Your task to perform on an android device: Go to sound settings Image 0: 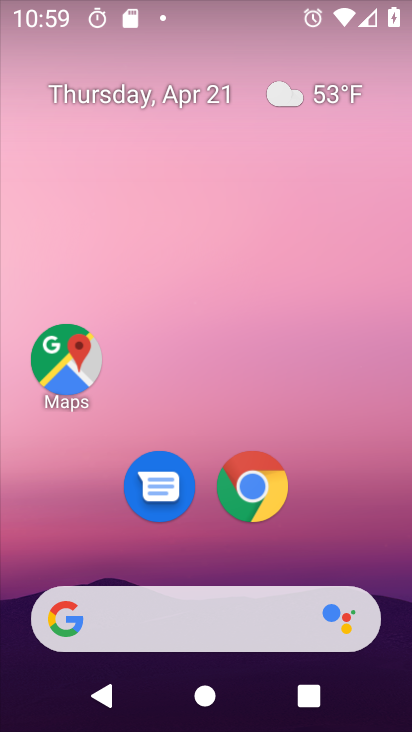
Step 0: drag from (391, 574) to (338, 219)
Your task to perform on an android device: Go to sound settings Image 1: 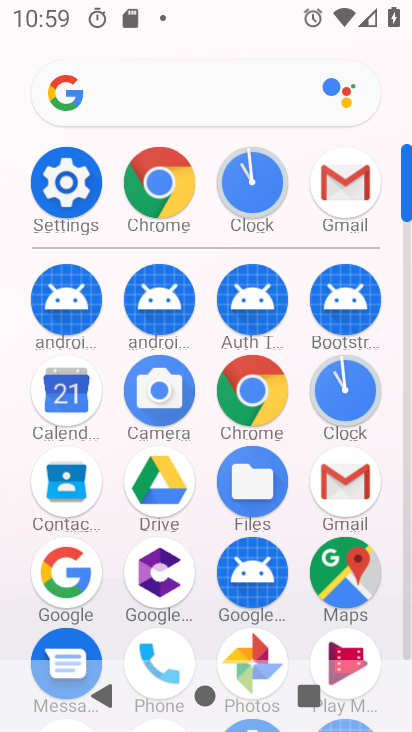
Step 1: click (69, 175)
Your task to perform on an android device: Go to sound settings Image 2: 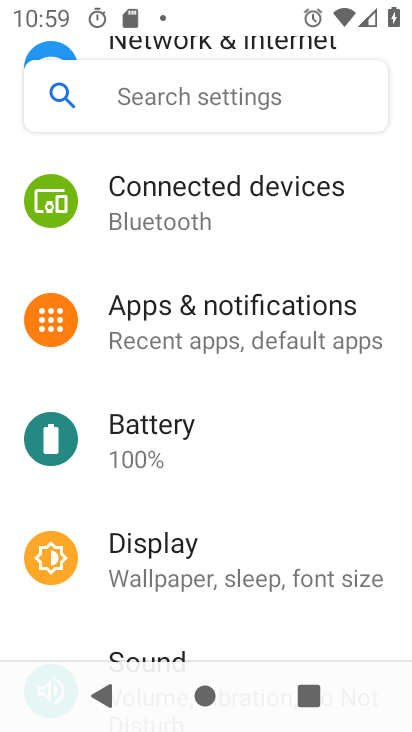
Step 2: click (171, 652)
Your task to perform on an android device: Go to sound settings Image 3: 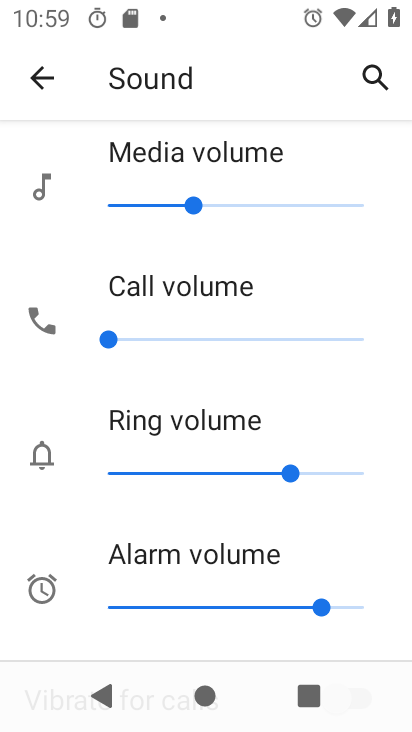
Step 3: task complete